Your task to perform on an android device: toggle improve location accuracy Image 0: 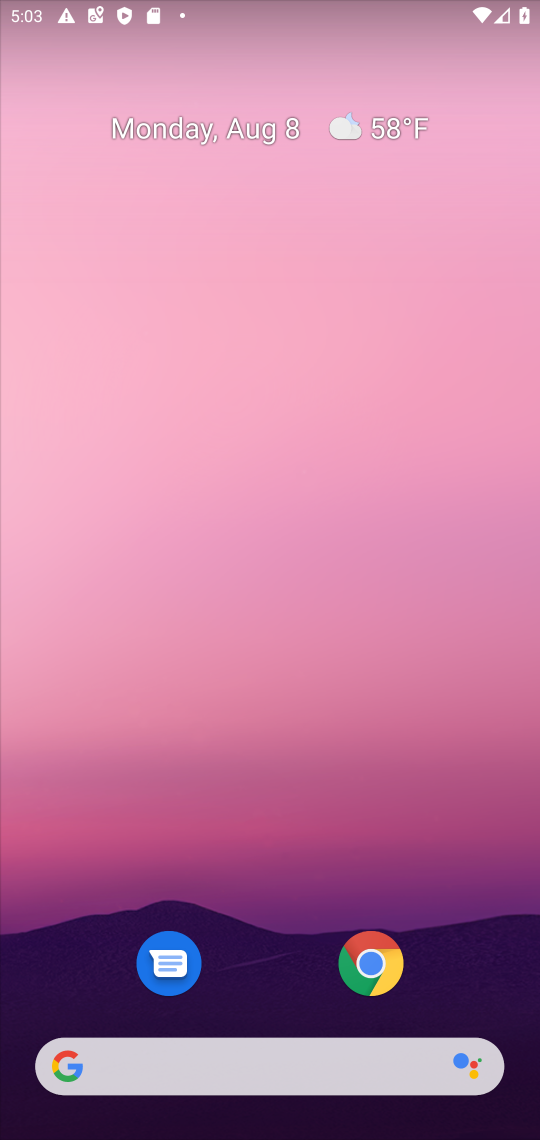
Step 0: drag from (220, 1021) to (240, 223)
Your task to perform on an android device: toggle improve location accuracy Image 1: 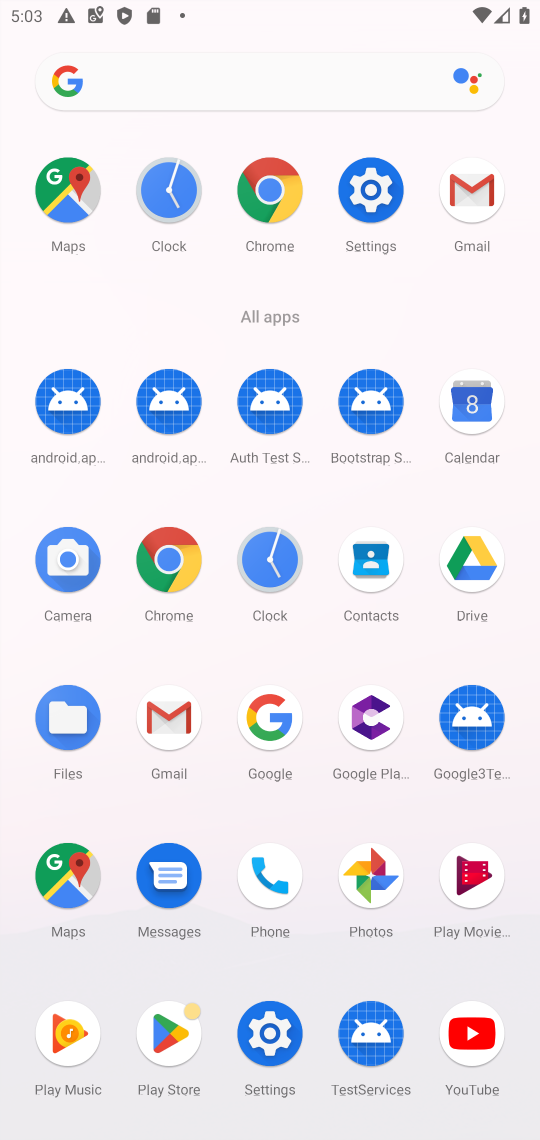
Step 1: click (375, 198)
Your task to perform on an android device: toggle improve location accuracy Image 2: 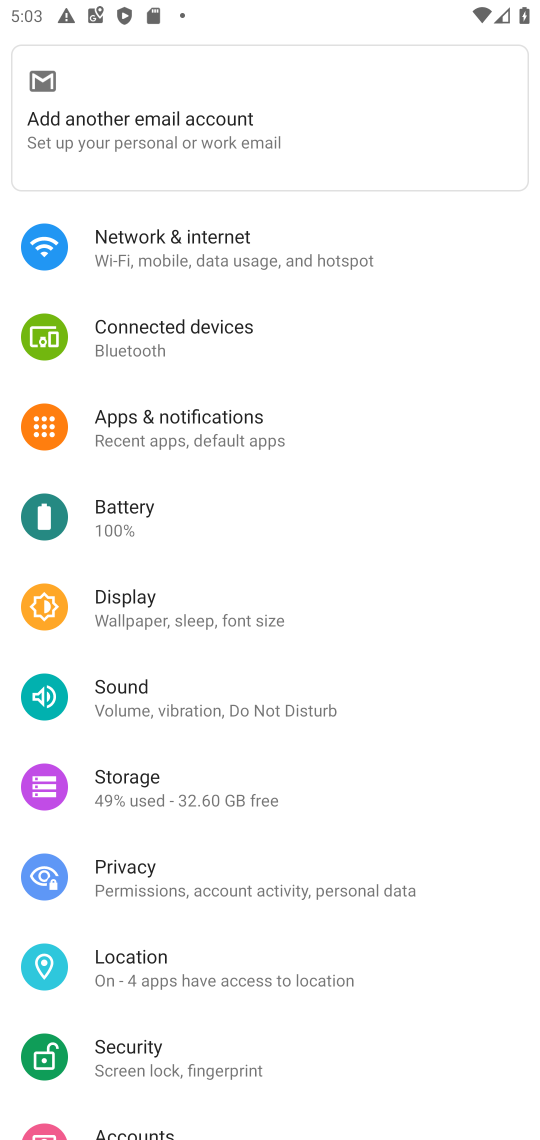
Step 2: click (115, 983)
Your task to perform on an android device: toggle improve location accuracy Image 3: 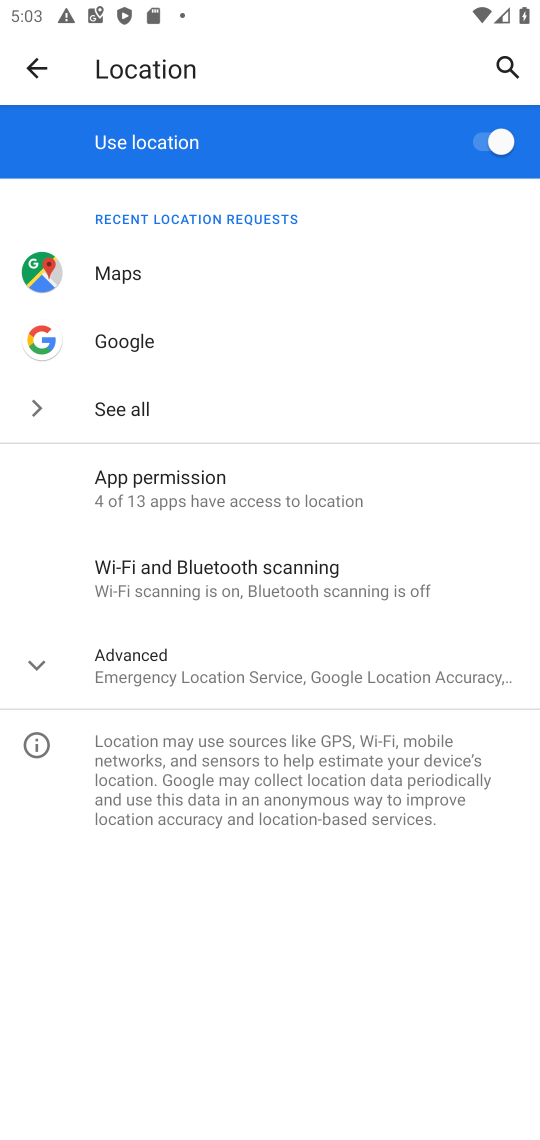
Step 3: click (259, 644)
Your task to perform on an android device: toggle improve location accuracy Image 4: 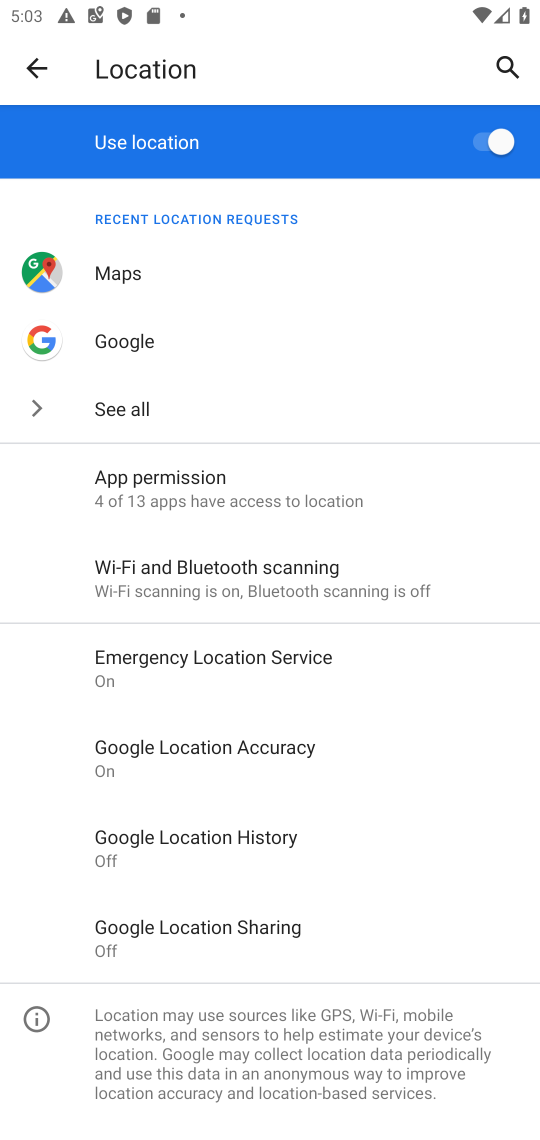
Step 4: click (183, 739)
Your task to perform on an android device: toggle improve location accuracy Image 5: 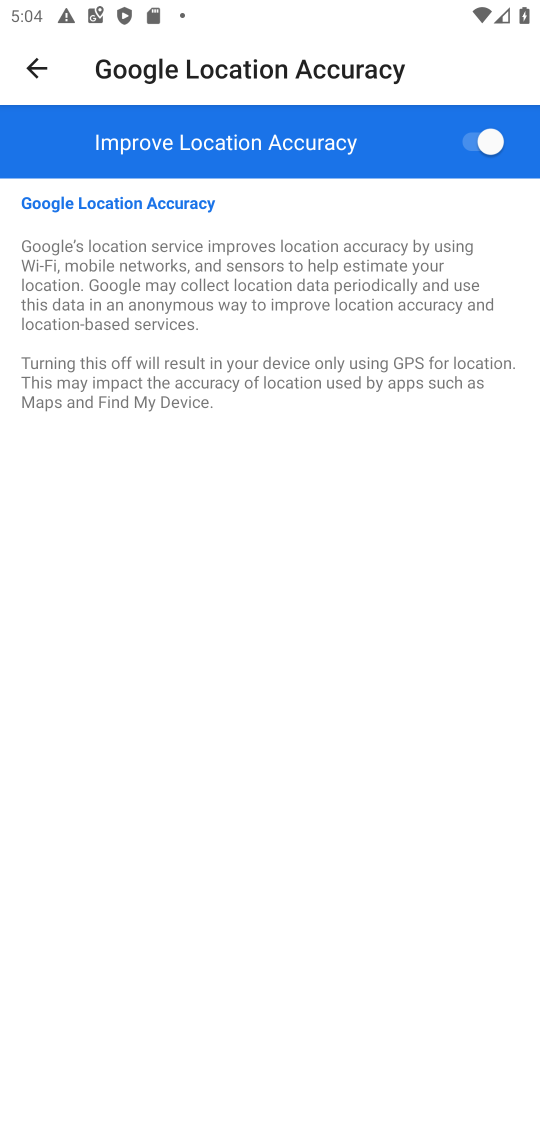
Step 5: click (487, 151)
Your task to perform on an android device: toggle improve location accuracy Image 6: 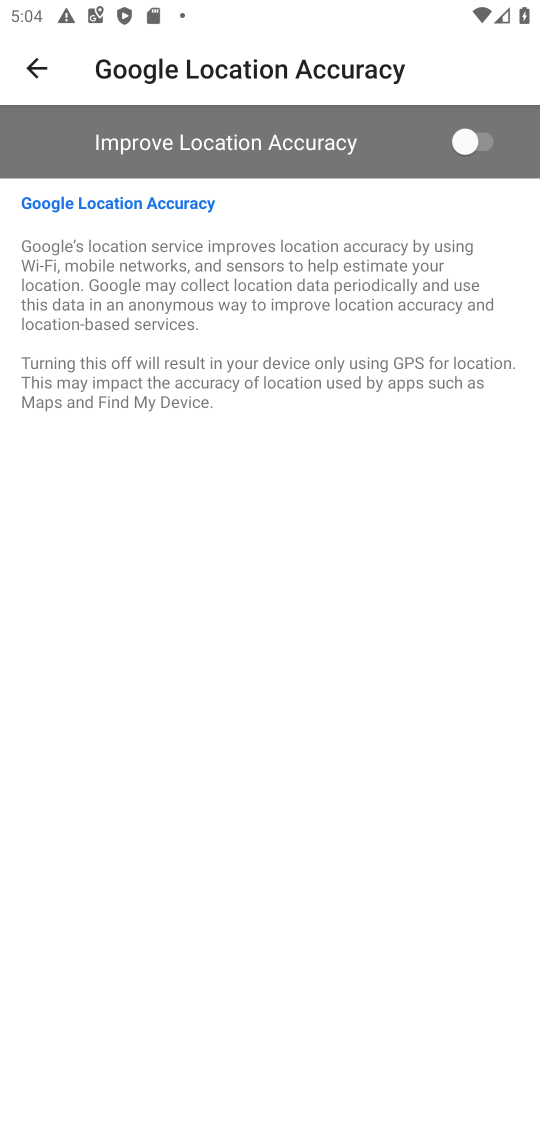
Step 6: task complete